Your task to perform on an android device: open a new tab in the chrome app Image 0: 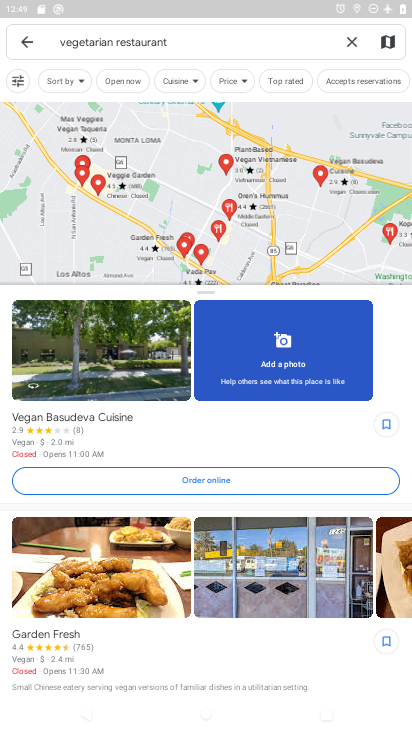
Step 0: press home button
Your task to perform on an android device: open a new tab in the chrome app Image 1: 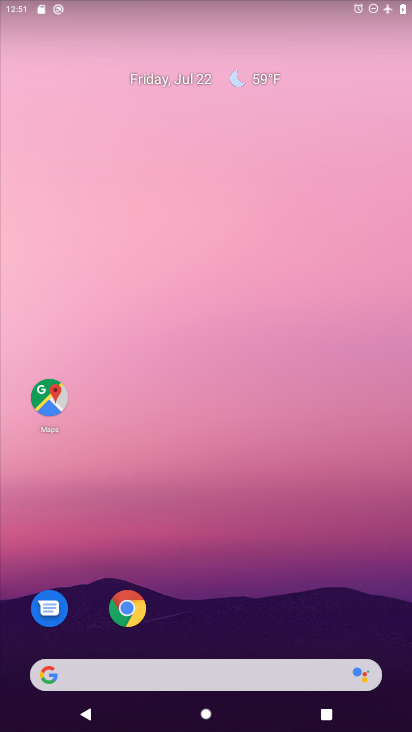
Step 1: drag from (240, 413) to (118, 37)
Your task to perform on an android device: open a new tab in the chrome app Image 2: 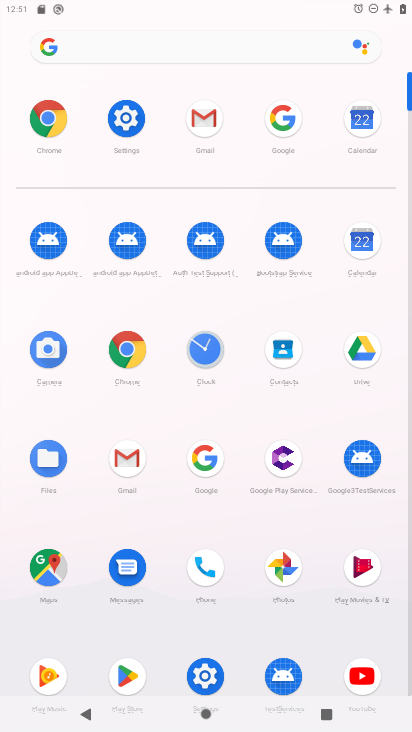
Step 2: click (38, 103)
Your task to perform on an android device: open a new tab in the chrome app Image 3: 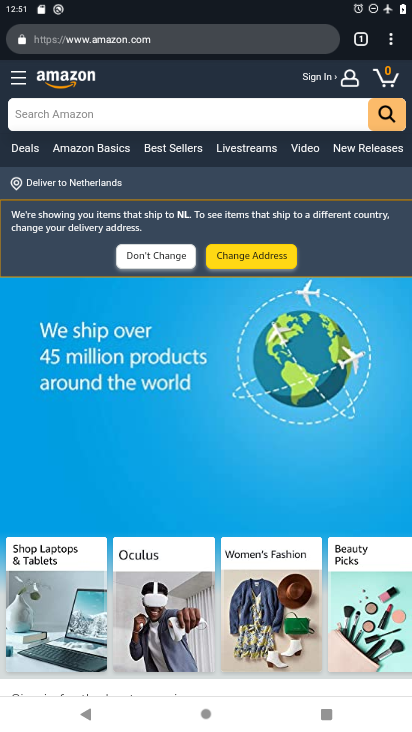
Step 3: click (388, 35)
Your task to perform on an android device: open a new tab in the chrome app Image 4: 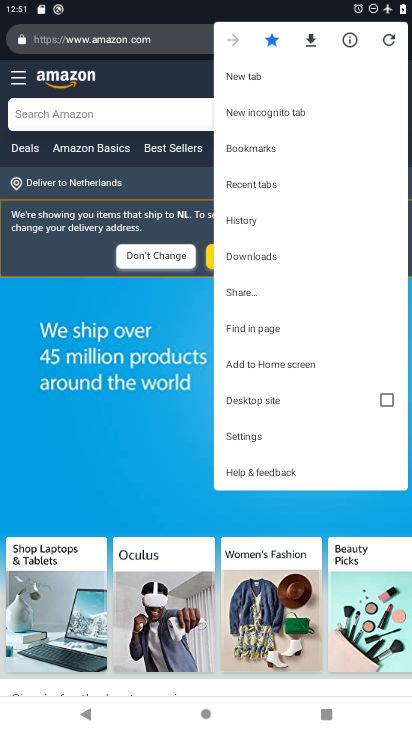
Step 4: click (297, 73)
Your task to perform on an android device: open a new tab in the chrome app Image 5: 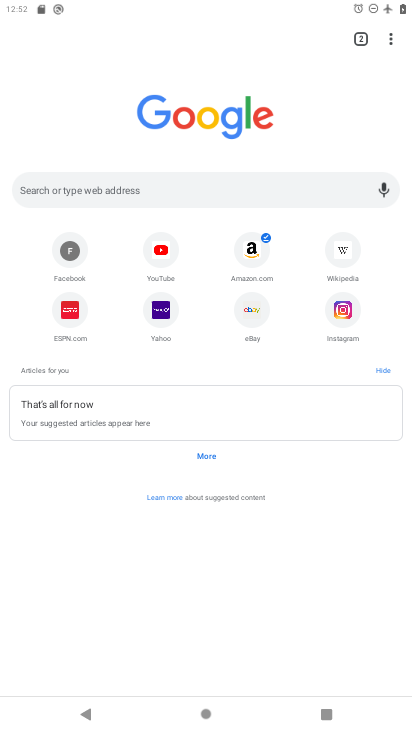
Step 5: task complete